Your task to perform on an android device: add a contact Image 0: 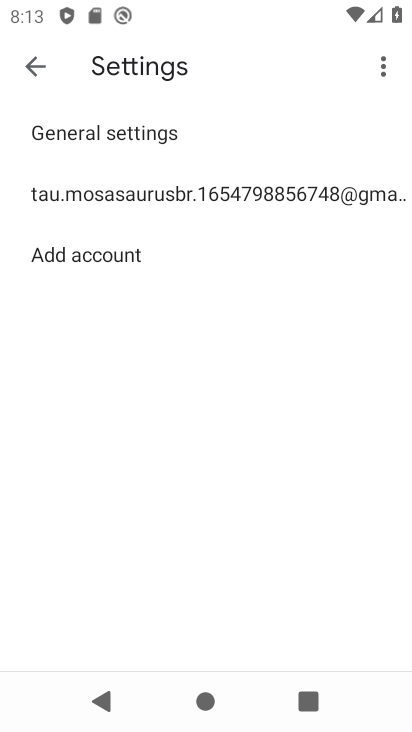
Step 0: press home button
Your task to perform on an android device: add a contact Image 1: 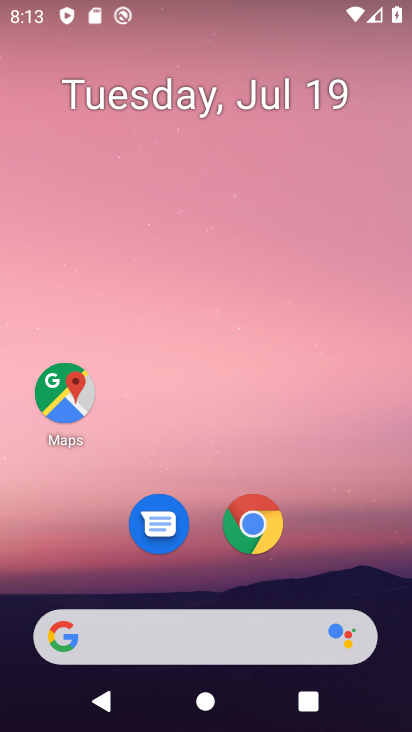
Step 1: drag from (173, 626) to (308, 103)
Your task to perform on an android device: add a contact Image 2: 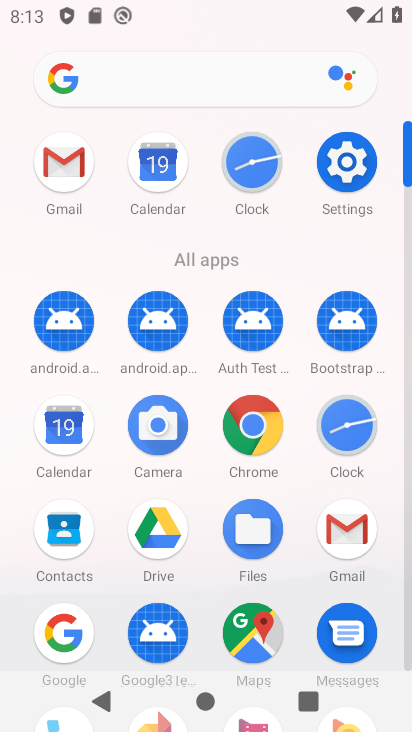
Step 2: click (65, 538)
Your task to perform on an android device: add a contact Image 3: 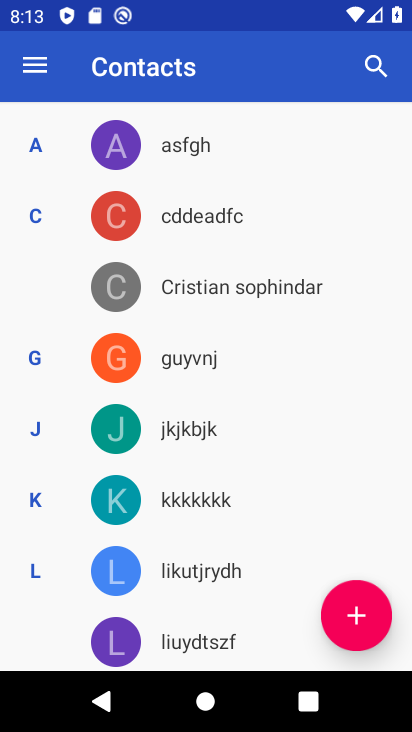
Step 3: click (349, 614)
Your task to perform on an android device: add a contact Image 4: 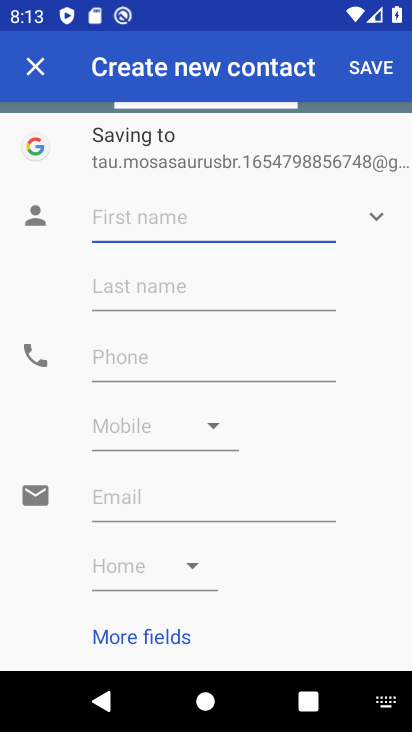
Step 4: type "tfgghhh"
Your task to perform on an android device: add a contact Image 5: 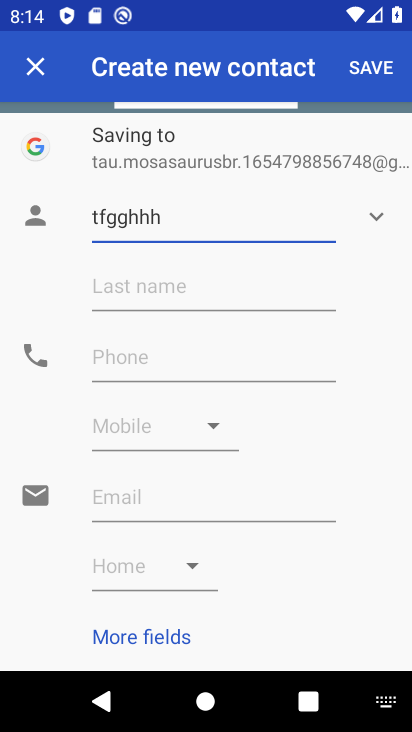
Step 5: click (143, 346)
Your task to perform on an android device: add a contact Image 6: 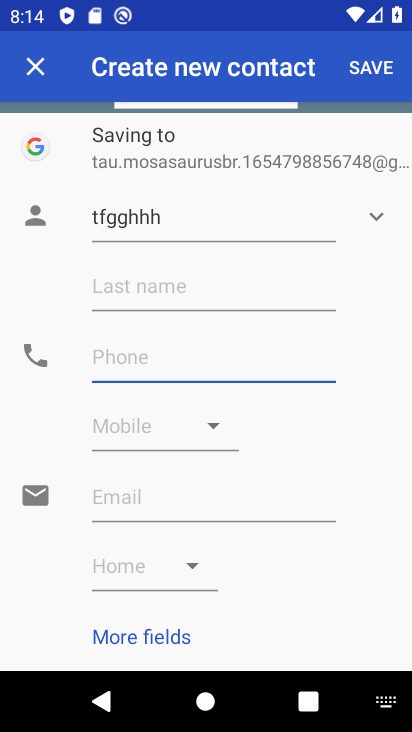
Step 6: type "265544477788"
Your task to perform on an android device: add a contact Image 7: 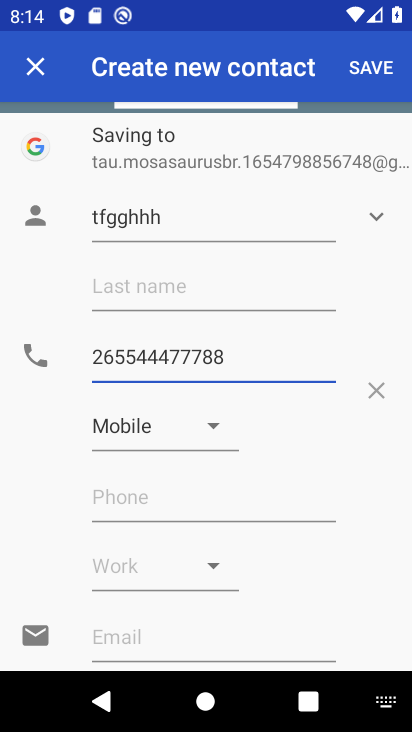
Step 7: click (366, 74)
Your task to perform on an android device: add a contact Image 8: 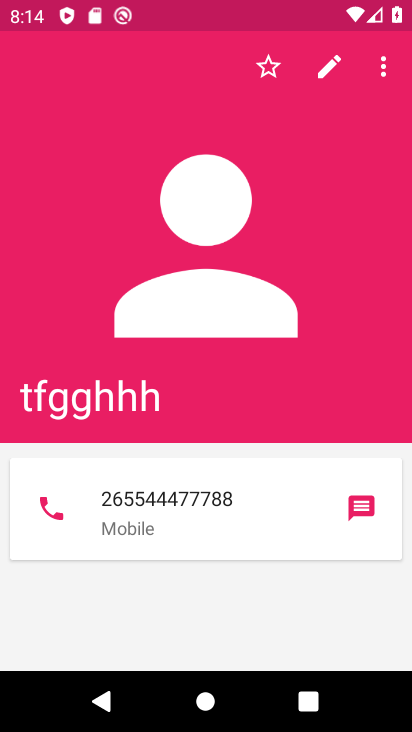
Step 8: task complete